Your task to perform on an android device: Open Chrome and go to settings Image 0: 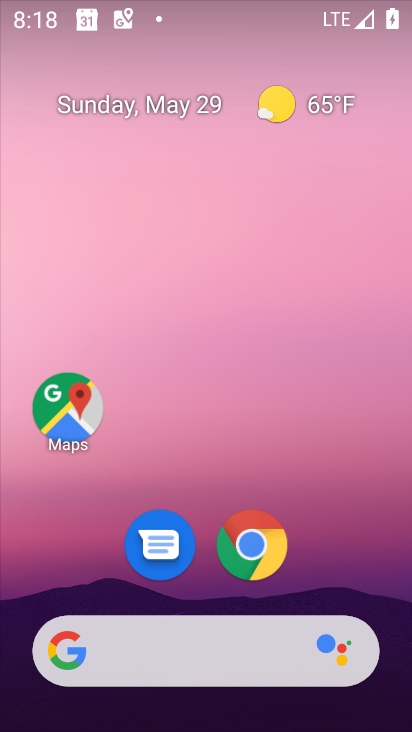
Step 0: click (254, 545)
Your task to perform on an android device: Open Chrome and go to settings Image 1: 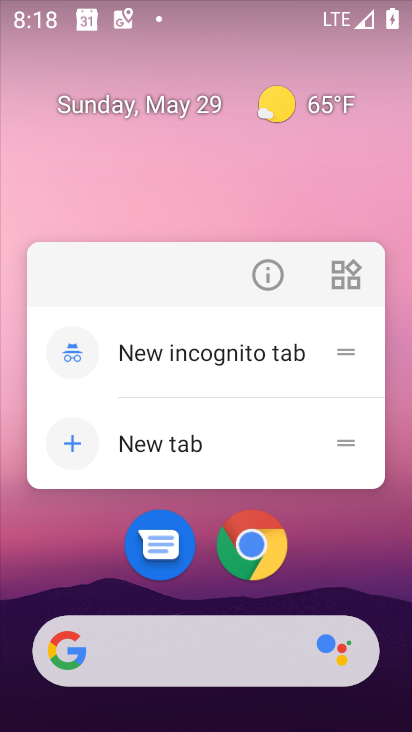
Step 1: click (264, 549)
Your task to perform on an android device: Open Chrome and go to settings Image 2: 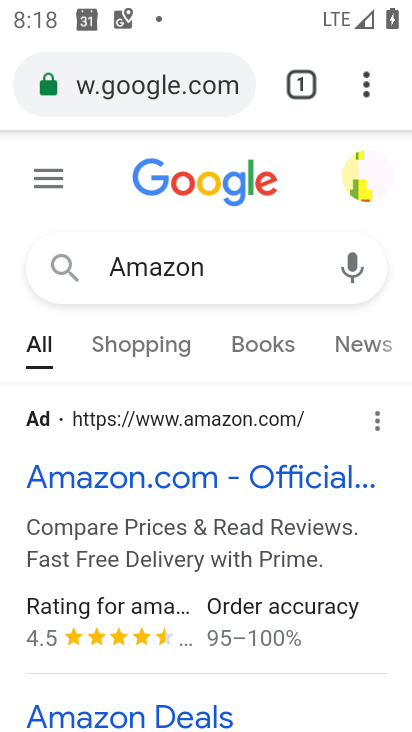
Step 2: click (365, 86)
Your task to perform on an android device: Open Chrome and go to settings Image 3: 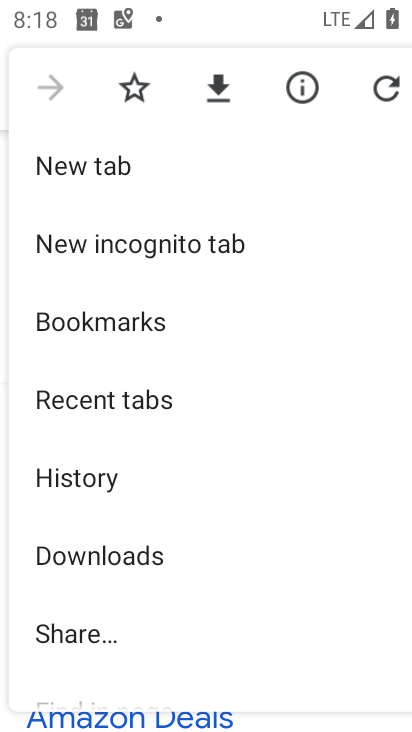
Step 3: drag from (148, 584) to (178, 315)
Your task to perform on an android device: Open Chrome and go to settings Image 4: 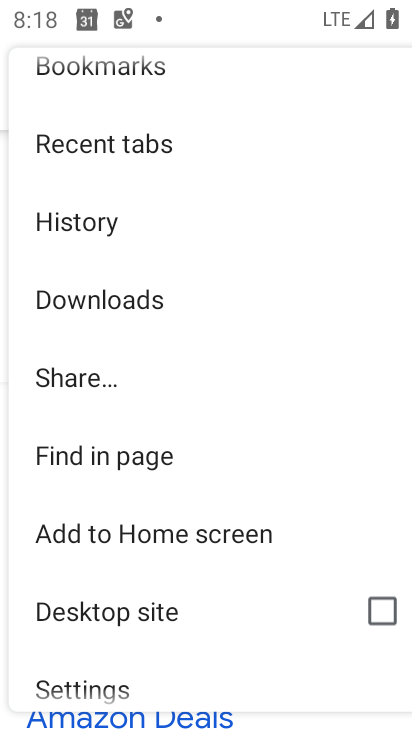
Step 4: drag from (144, 262) to (166, 176)
Your task to perform on an android device: Open Chrome and go to settings Image 5: 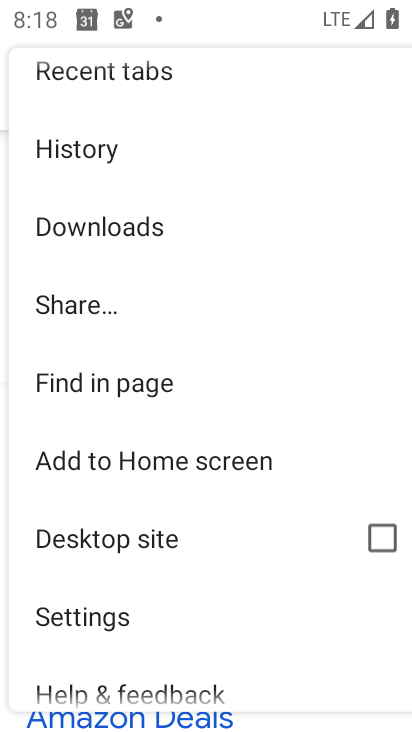
Step 5: click (89, 605)
Your task to perform on an android device: Open Chrome and go to settings Image 6: 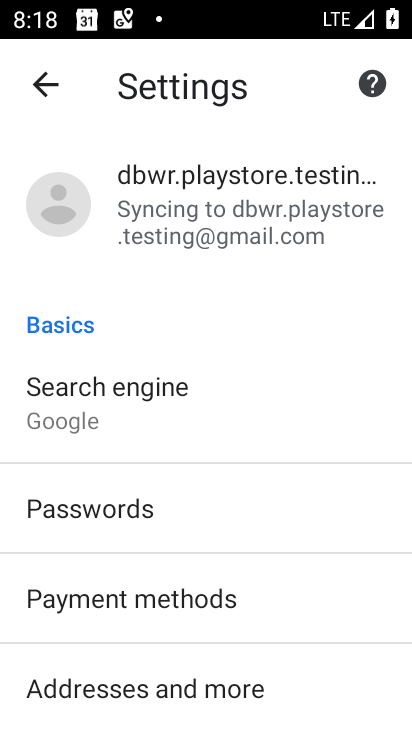
Step 6: task complete